Your task to perform on an android device: turn off location Image 0: 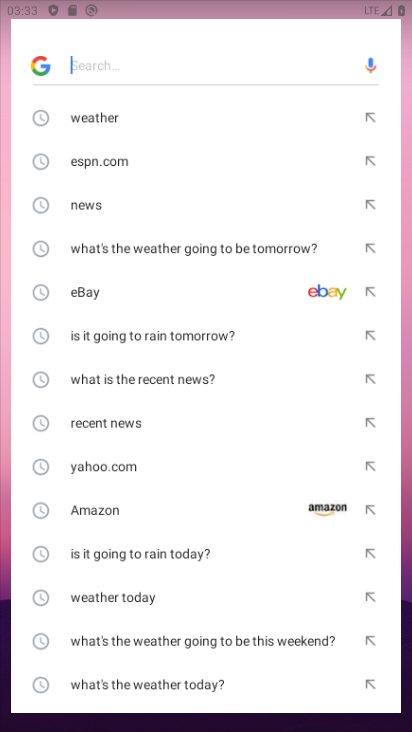
Step 0: press home button
Your task to perform on an android device: turn off location Image 1: 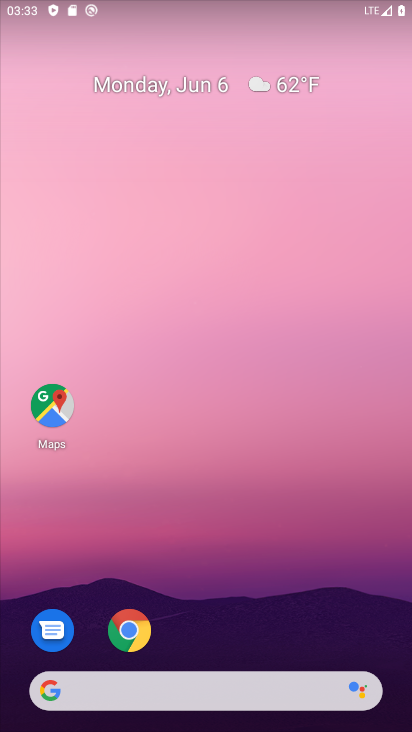
Step 1: drag from (205, 626) to (192, 19)
Your task to perform on an android device: turn off location Image 2: 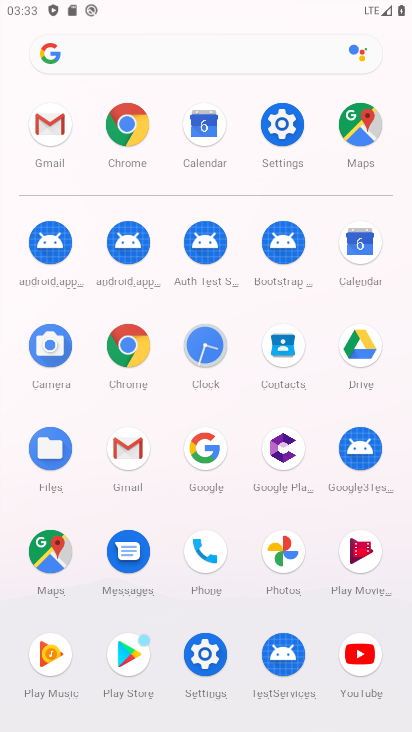
Step 2: click (259, 130)
Your task to perform on an android device: turn off location Image 3: 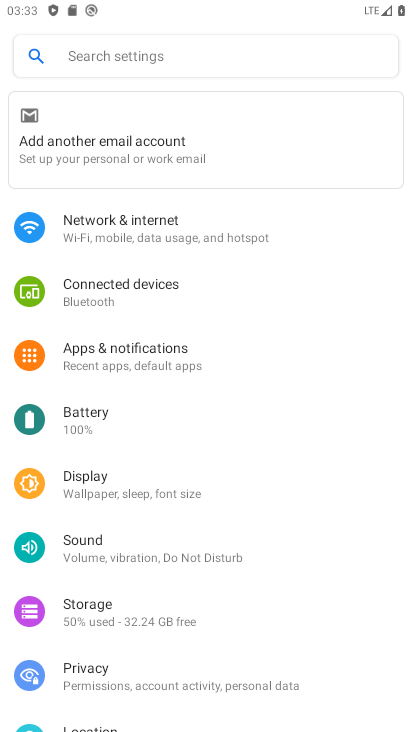
Step 3: drag from (200, 440) to (226, 13)
Your task to perform on an android device: turn off location Image 4: 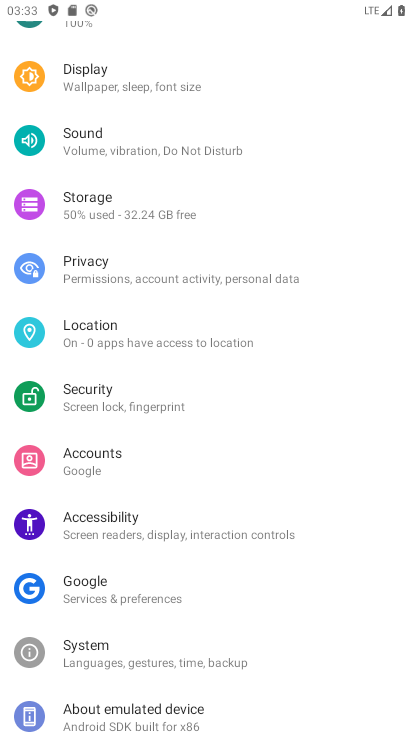
Step 4: click (106, 340)
Your task to perform on an android device: turn off location Image 5: 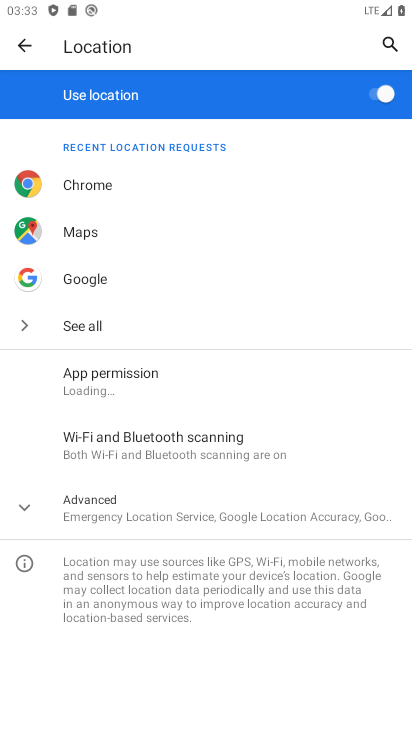
Step 5: click (136, 81)
Your task to perform on an android device: turn off location Image 6: 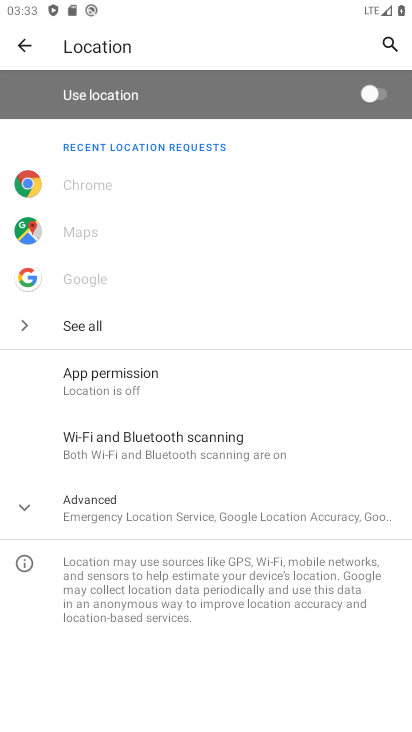
Step 6: task complete